Your task to perform on an android device: read, delete, or share a saved page in the chrome app Image 0: 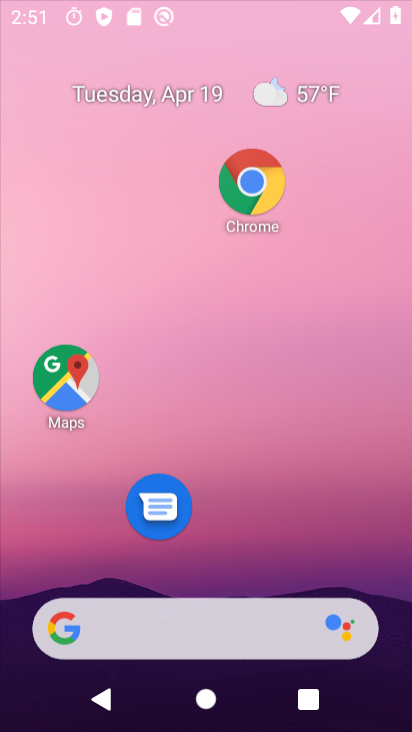
Step 0: drag from (235, 599) to (287, 116)
Your task to perform on an android device: read, delete, or share a saved page in the chrome app Image 1: 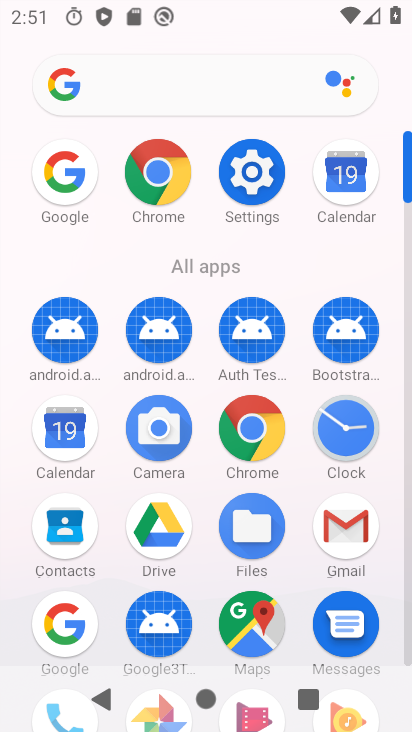
Step 1: click (267, 435)
Your task to perform on an android device: read, delete, or share a saved page in the chrome app Image 2: 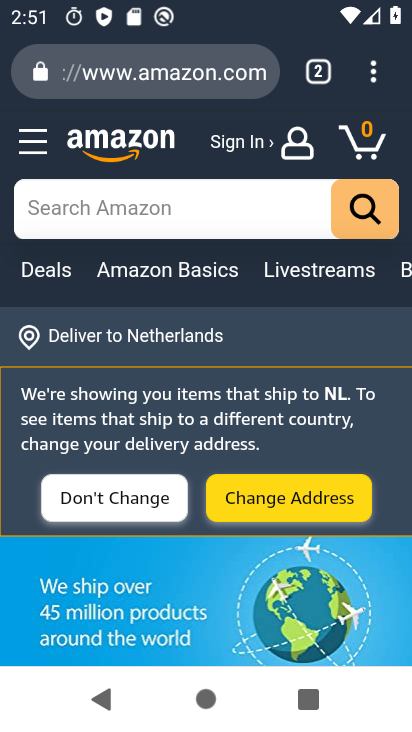
Step 2: click (378, 79)
Your task to perform on an android device: read, delete, or share a saved page in the chrome app Image 3: 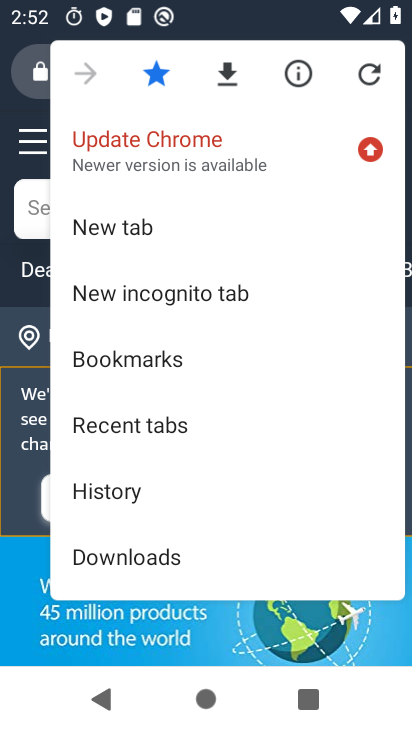
Step 3: click (157, 561)
Your task to perform on an android device: read, delete, or share a saved page in the chrome app Image 4: 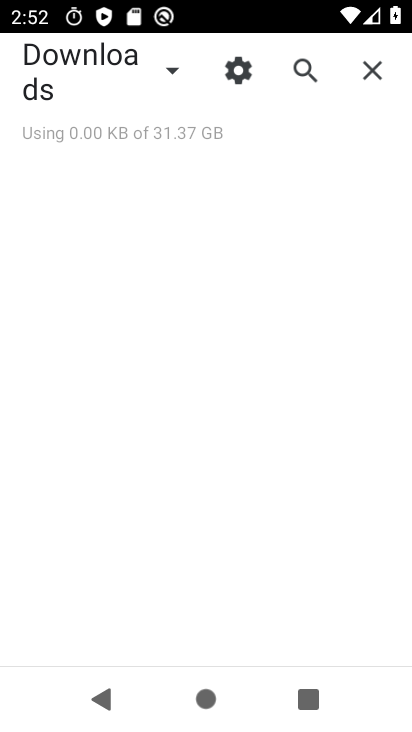
Step 4: click (166, 68)
Your task to perform on an android device: read, delete, or share a saved page in the chrome app Image 5: 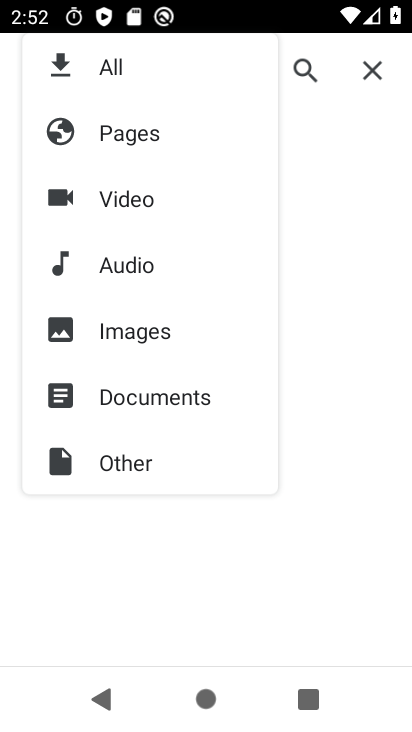
Step 5: click (164, 130)
Your task to perform on an android device: read, delete, or share a saved page in the chrome app Image 6: 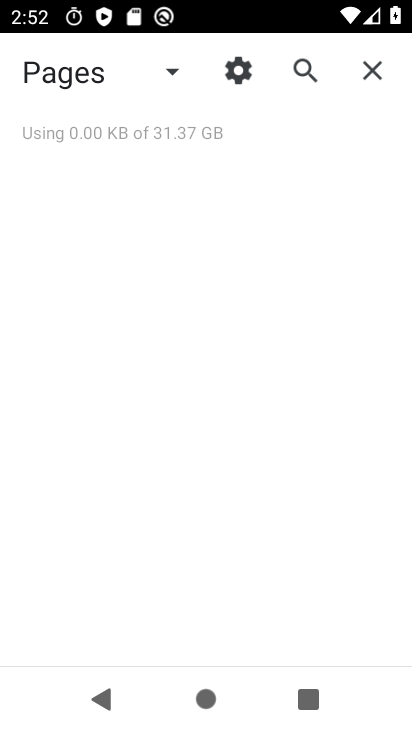
Step 6: task complete